Your task to perform on an android device: manage bookmarks in the chrome app Image 0: 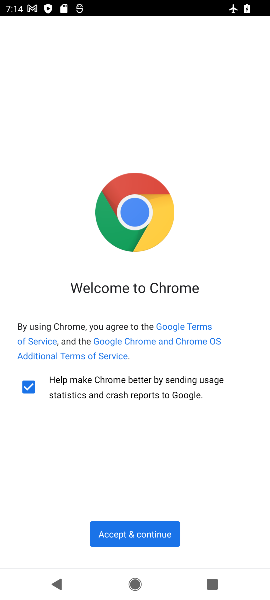
Step 0: click (133, 530)
Your task to perform on an android device: manage bookmarks in the chrome app Image 1: 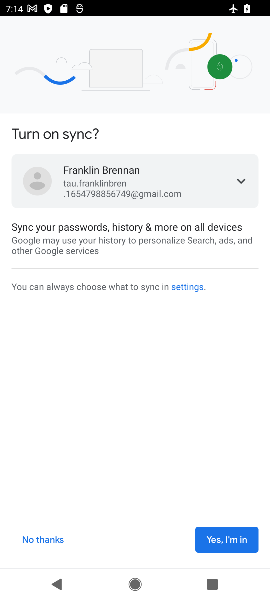
Step 1: click (228, 537)
Your task to perform on an android device: manage bookmarks in the chrome app Image 2: 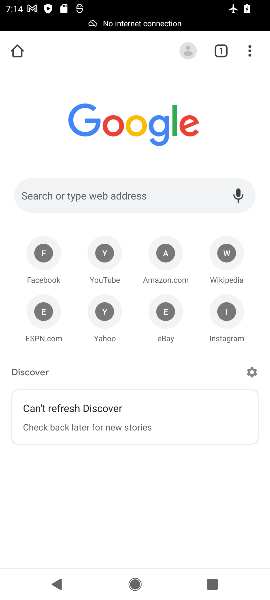
Step 2: click (251, 56)
Your task to perform on an android device: manage bookmarks in the chrome app Image 3: 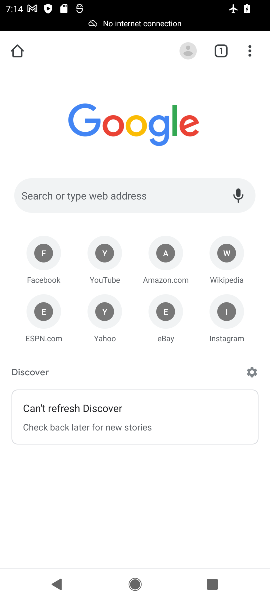
Step 3: click (245, 47)
Your task to perform on an android device: manage bookmarks in the chrome app Image 4: 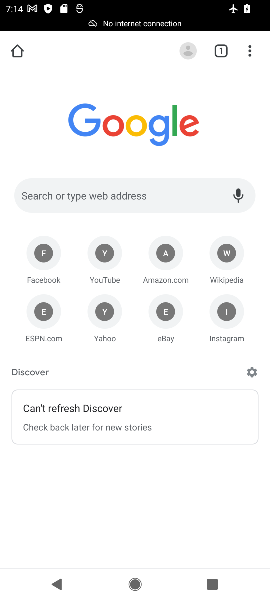
Step 4: click (245, 51)
Your task to perform on an android device: manage bookmarks in the chrome app Image 5: 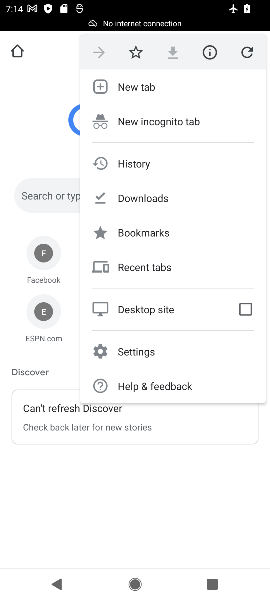
Step 5: click (151, 229)
Your task to perform on an android device: manage bookmarks in the chrome app Image 6: 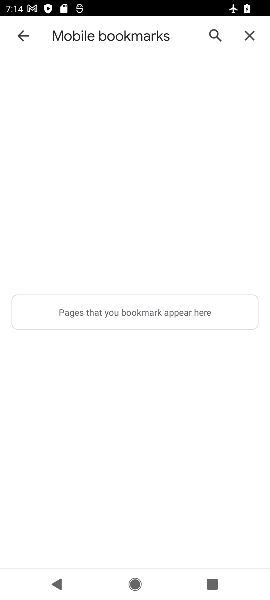
Step 6: task complete